Your task to perform on an android device: search for starred emails in the gmail app Image 0: 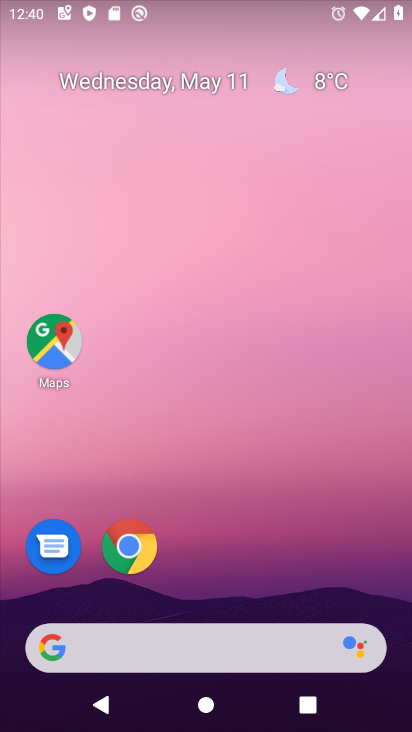
Step 0: drag from (168, 651) to (334, 101)
Your task to perform on an android device: search for starred emails in the gmail app Image 1: 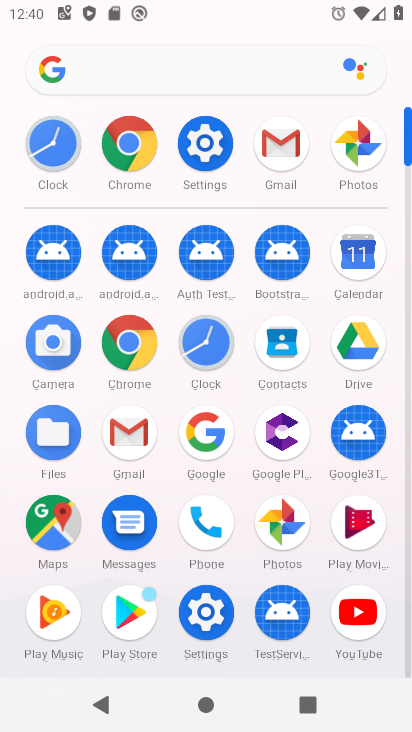
Step 1: click (279, 160)
Your task to perform on an android device: search for starred emails in the gmail app Image 2: 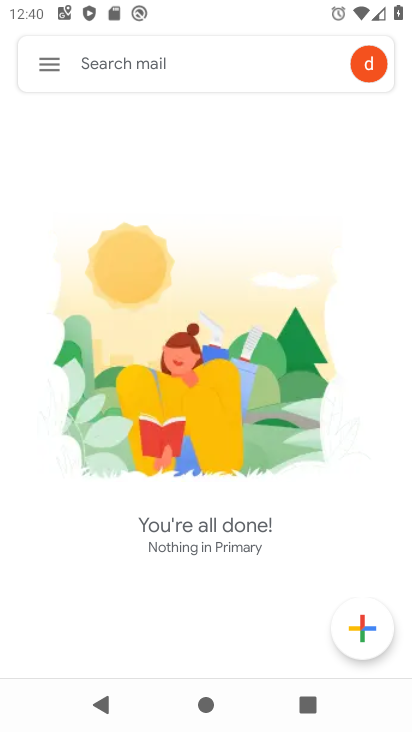
Step 2: click (51, 65)
Your task to perform on an android device: search for starred emails in the gmail app Image 3: 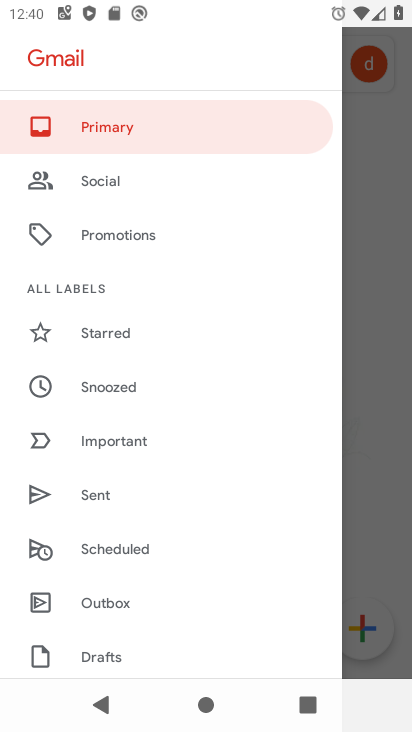
Step 3: click (103, 333)
Your task to perform on an android device: search for starred emails in the gmail app Image 4: 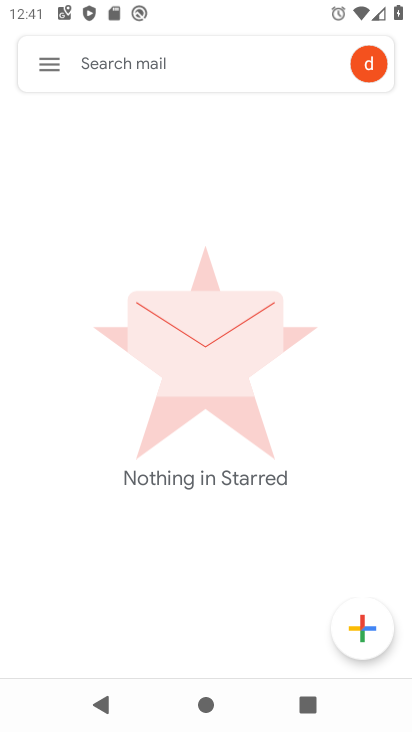
Step 4: task complete